Your task to perform on an android device: Go to Yahoo.com Image 0: 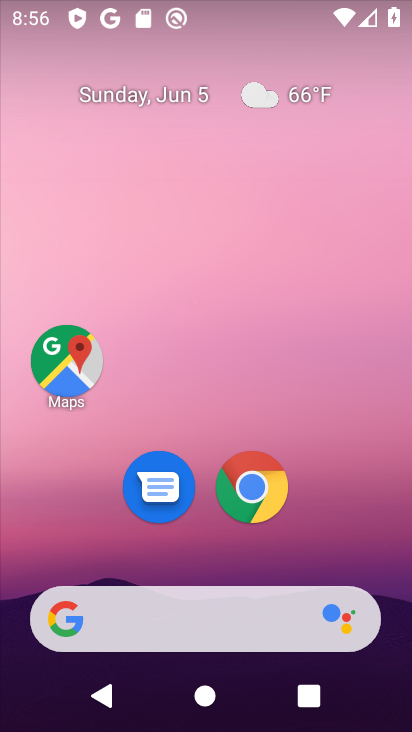
Step 0: click (253, 486)
Your task to perform on an android device: Go to Yahoo.com Image 1: 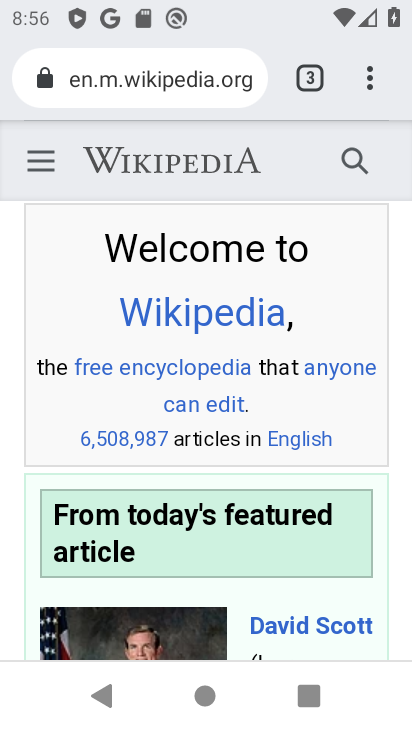
Step 1: click (316, 75)
Your task to perform on an android device: Go to Yahoo.com Image 2: 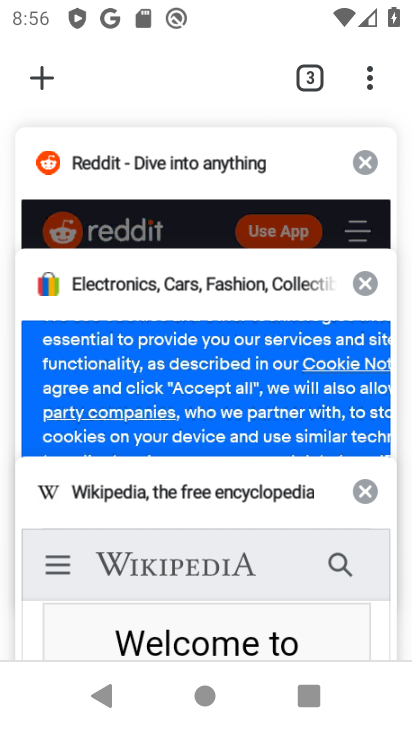
Step 2: click (38, 70)
Your task to perform on an android device: Go to Yahoo.com Image 3: 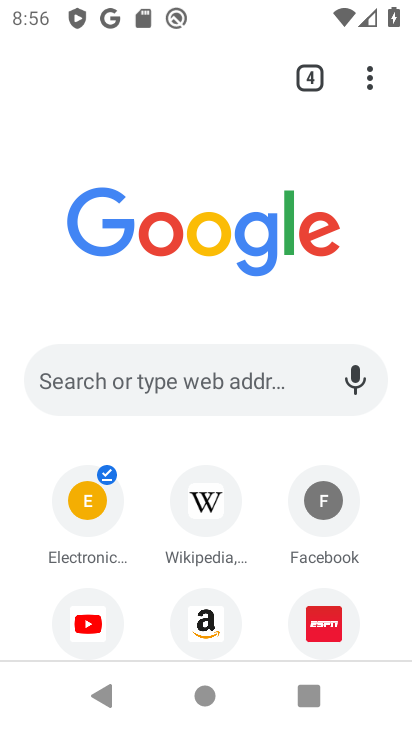
Step 3: click (157, 382)
Your task to perform on an android device: Go to Yahoo.com Image 4: 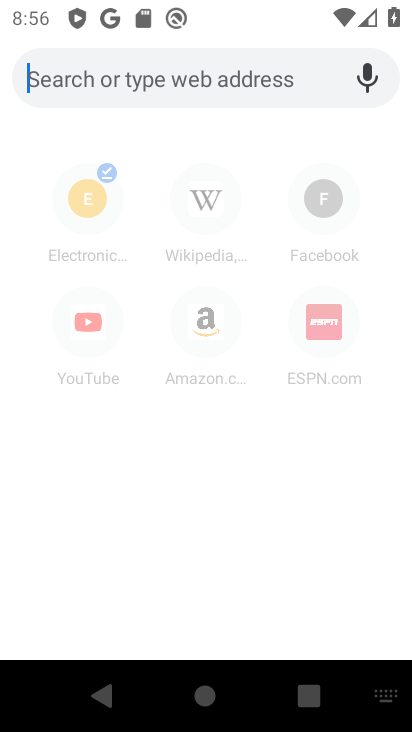
Step 4: type "yahoo.com"
Your task to perform on an android device: Go to Yahoo.com Image 5: 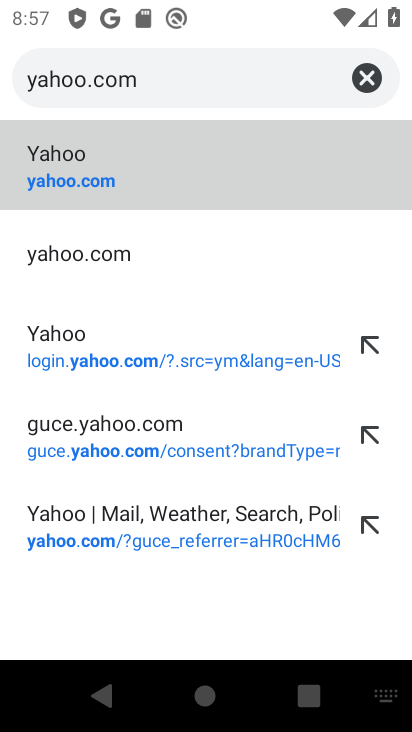
Step 5: click (130, 175)
Your task to perform on an android device: Go to Yahoo.com Image 6: 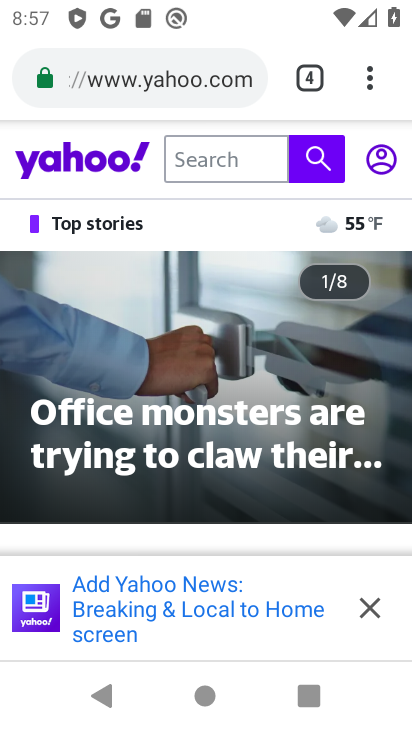
Step 6: task complete